Your task to perform on an android device: see creations saved in the google photos Image 0: 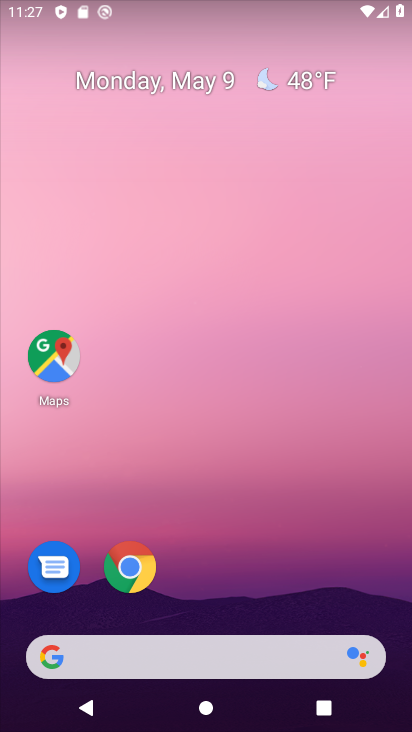
Step 0: drag from (184, 641) to (286, 139)
Your task to perform on an android device: see creations saved in the google photos Image 1: 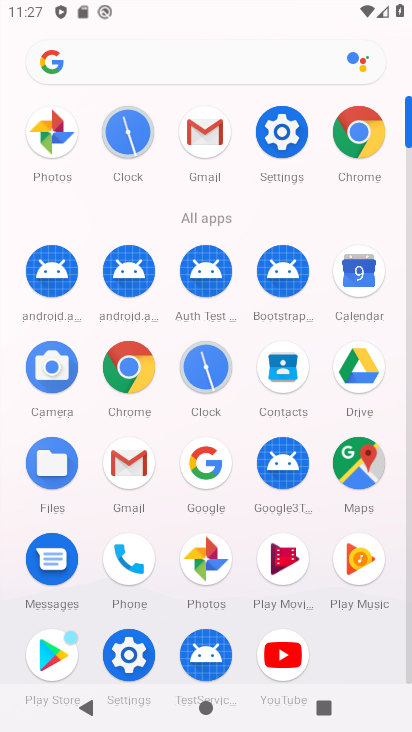
Step 1: click (213, 557)
Your task to perform on an android device: see creations saved in the google photos Image 2: 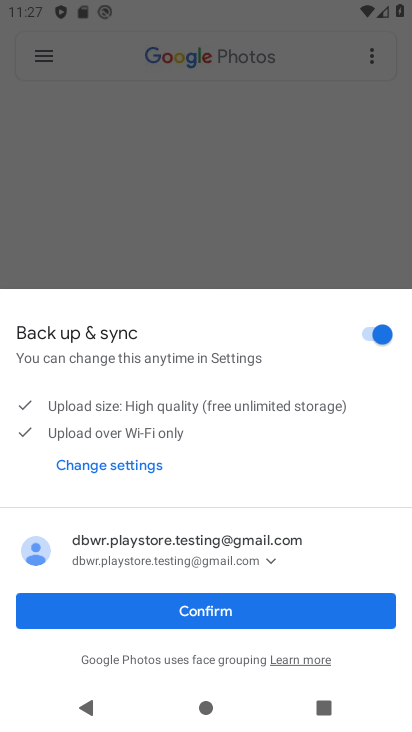
Step 2: click (225, 612)
Your task to perform on an android device: see creations saved in the google photos Image 3: 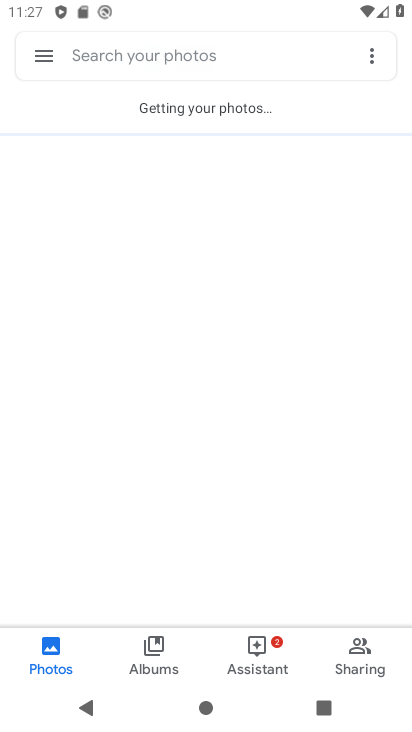
Step 3: click (169, 59)
Your task to perform on an android device: see creations saved in the google photos Image 4: 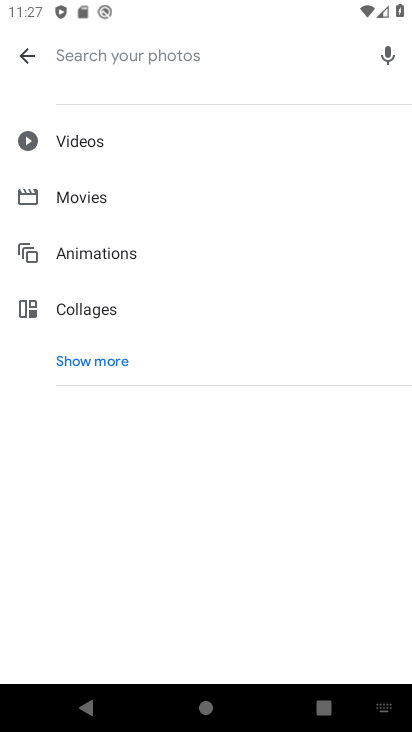
Step 4: click (100, 367)
Your task to perform on an android device: see creations saved in the google photos Image 5: 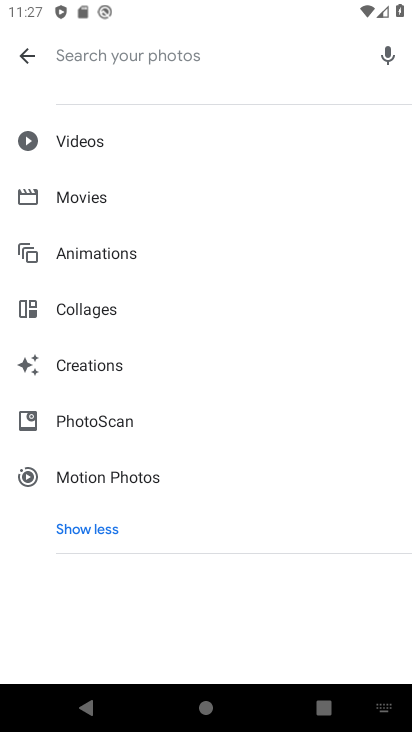
Step 5: click (103, 361)
Your task to perform on an android device: see creations saved in the google photos Image 6: 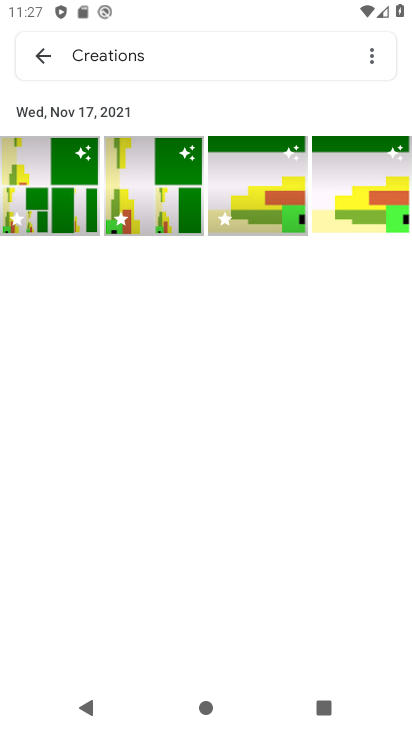
Step 6: task complete